Your task to perform on an android device: Open calendar and show me the first week of next month Image 0: 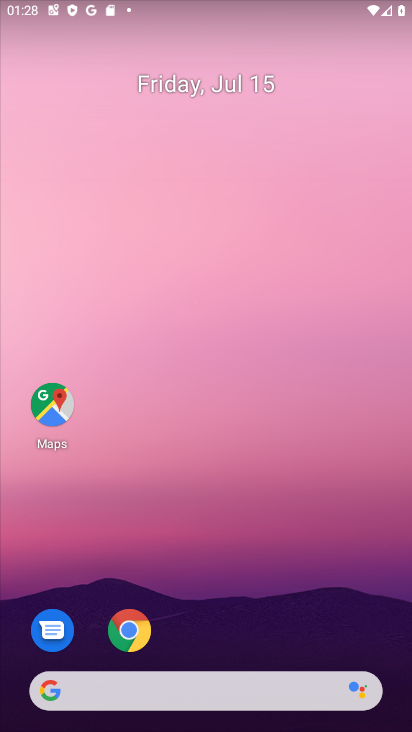
Step 0: drag from (219, 307) to (234, 98)
Your task to perform on an android device: Open calendar and show me the first week of next month Image 1: 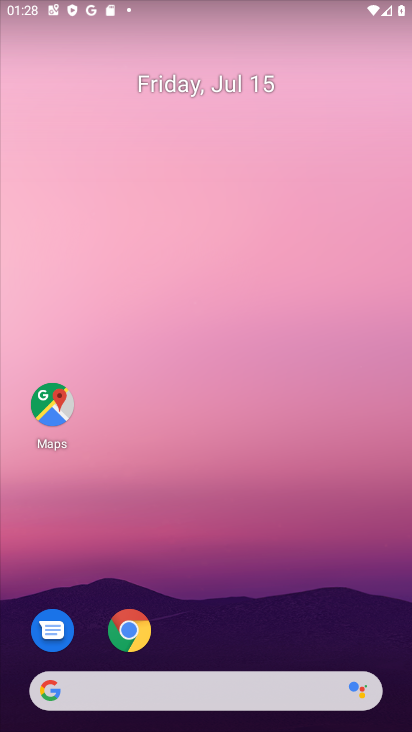
Step 1: drag from (263, 646) to (221, 88)
Your task to perform on an android device: Open calendar and show me the first week of next month Image 2: 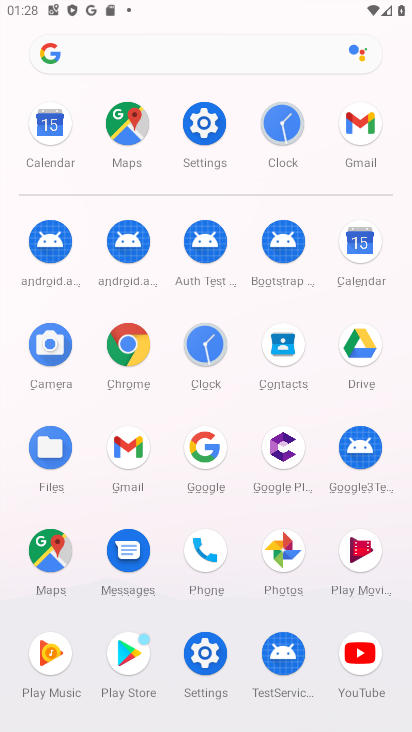
Step 2: click (360, 258)
Your task to perform on an android device: Open calendar and show me the first week of next month Image 3: 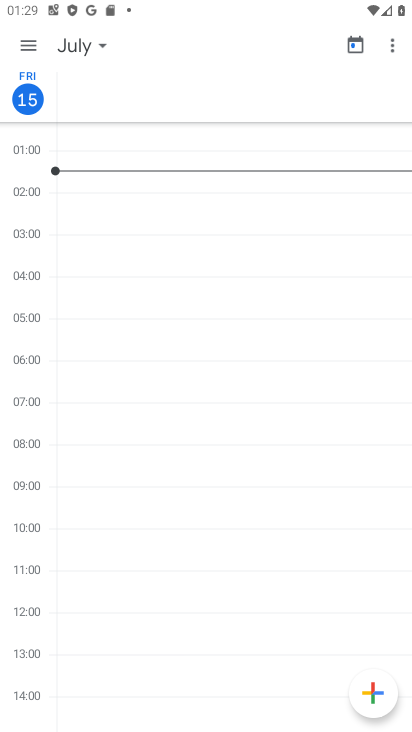
Step 3: task complete